Your task to perform on an android device: open a new tab in the chrome app Image 0: 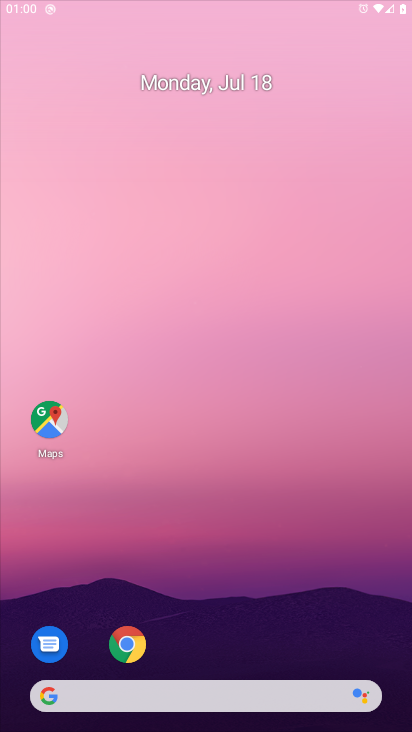
Step 0: press home button
Your task to perform on an android device: open a new tab in the chrome app Image 1: 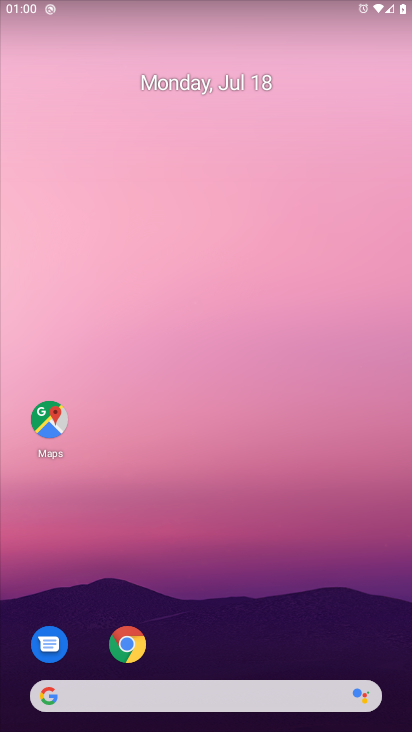
Step 1: click (134, 643)
Your task to perform on an android device: open a new tab in the chrome app Image 2: 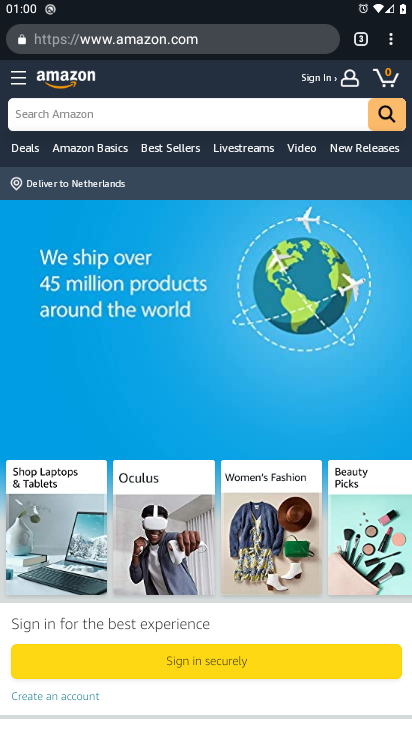
Step 2: click (362, 35)
Your task to perform on an android device: open a new tab in the chrome app Image 3: 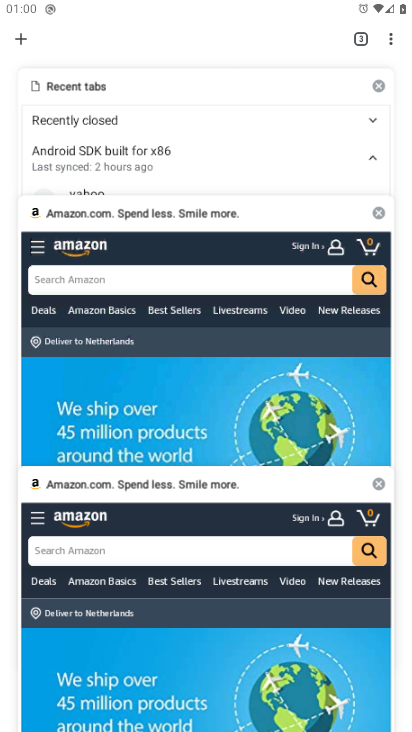
Step 3: click (22, 35)
Your task to perform on an android device: open a new tab in the chrome app Image 4: 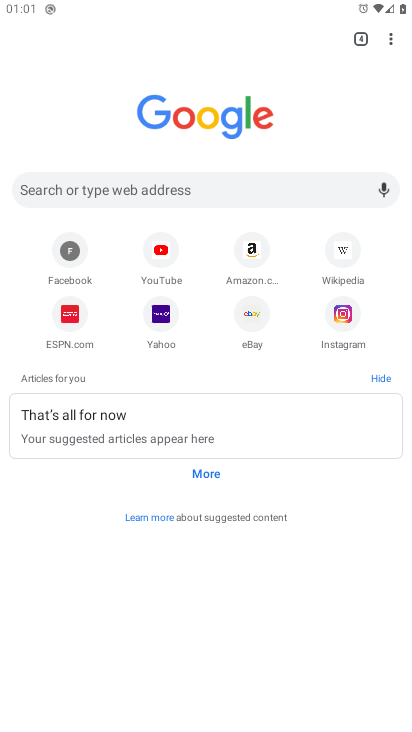
Step 4: task complete